Your task to perform on an android device: toggle notification dots Image 0: 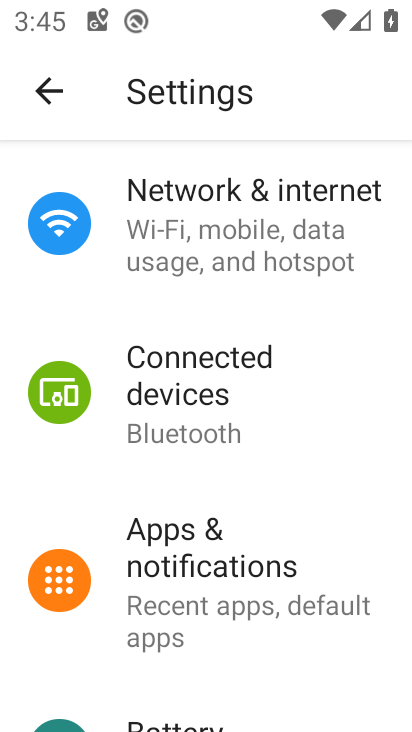
Step 0: click (194, 564)
Your task to perform on an android device: toggle notification dots Image 1: 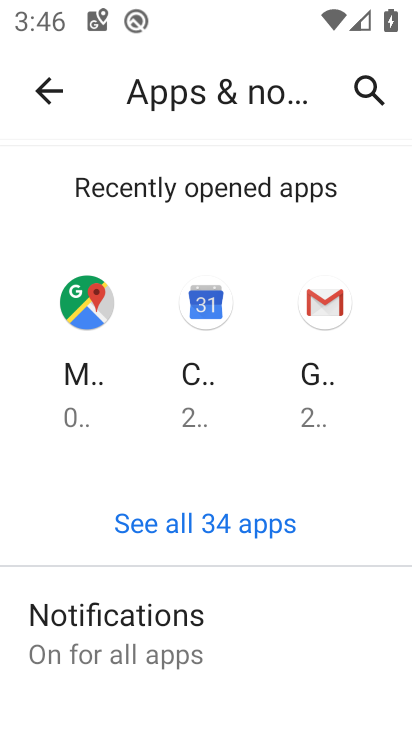
Step 1: click (122, 628)
Your task to perform on an android device: toggle notification dots Image 2: 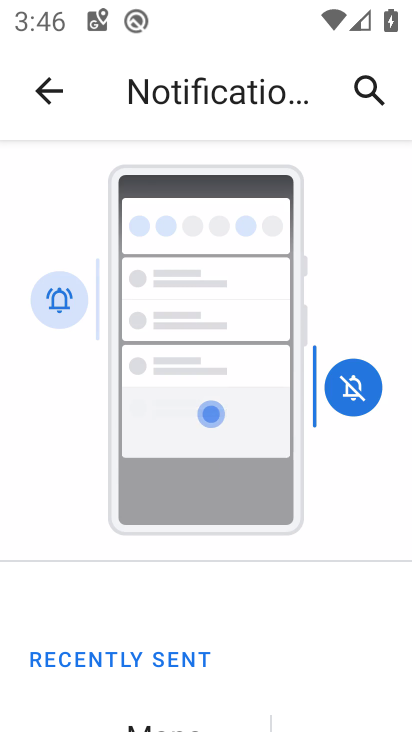
Step 2: drag from (241, 666) to (348, 106)
Your task to perform on an android device: toggle notification dots Image 3: 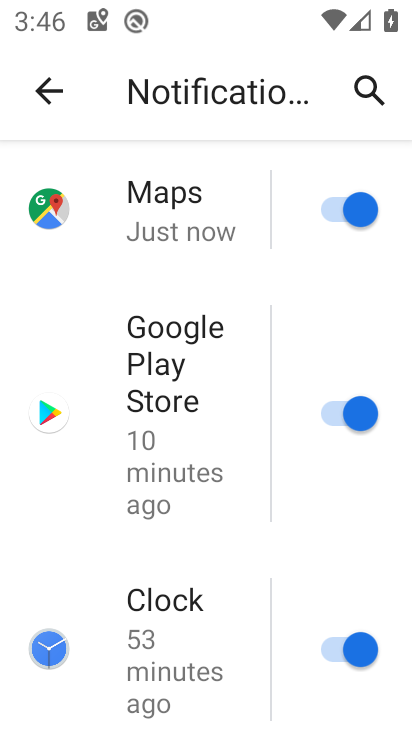
Step 3: drag from (277, 702) to (321, 272)
Your task to perform on an android device: toggle notification dots Image 4: 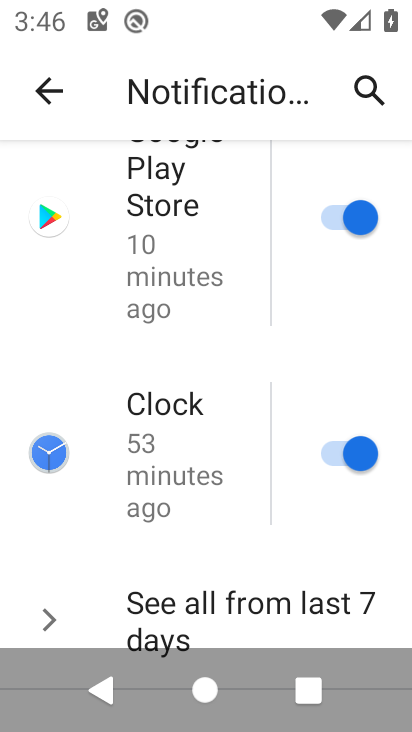
Step 4: drag from (251, 618) to (296, 270)
Your task to perform on an android device: toggle notification dots Image 5: 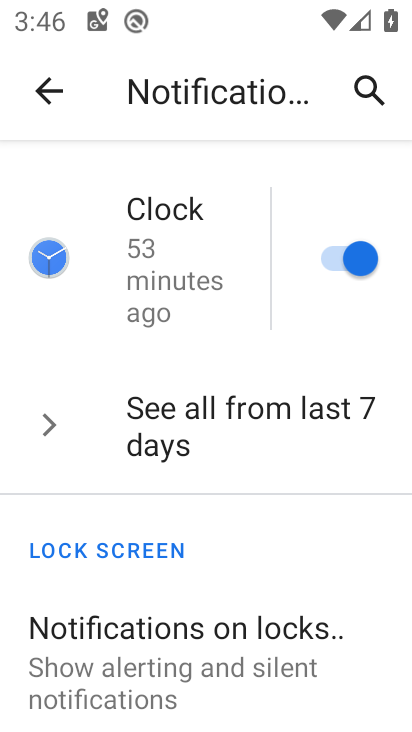
Step 5: drag from (158, 662) to (240, 252)
Your task to perform on an android device: toggle notification dots Image 6: 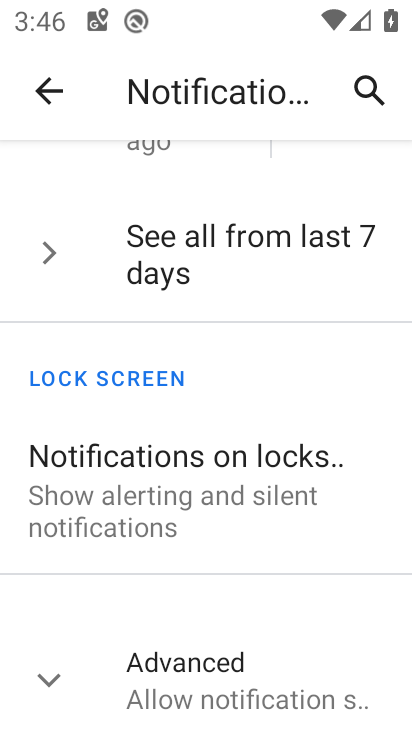
Step 6: click (193, 688)
Your task to perform on an android device: toggle notification dots Image 7: 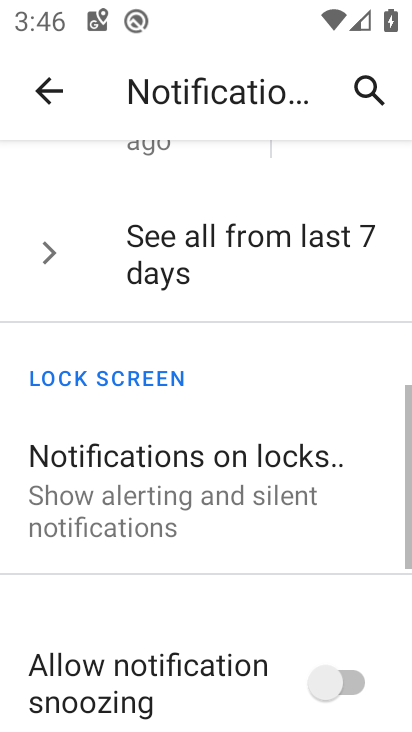
Step 7: drag from (232, 531) to (258, 351)
Your task to perform on an android device: toggle notification dots Image 8: 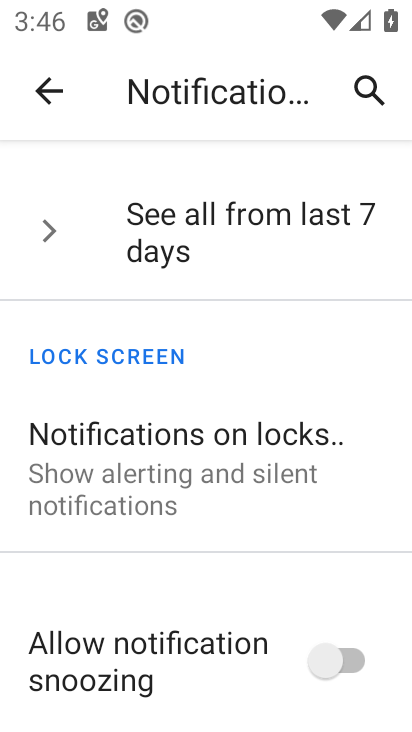
Step 8: drag from (218, 673) to (311, 392)
Your task to perform on an android device: toggle notification dots Image 9: 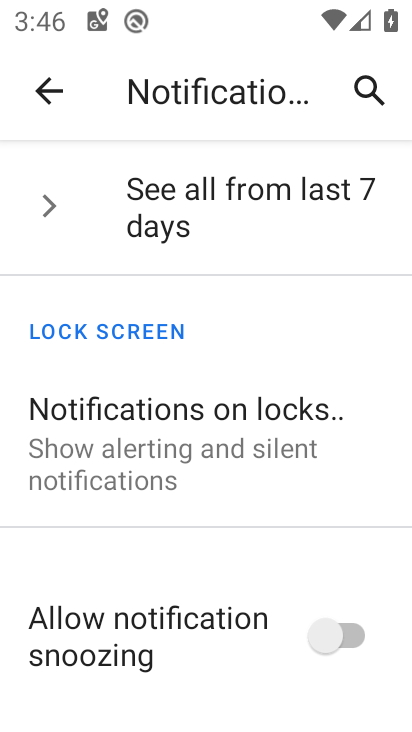
Step 9: drag from (201, 541) to (222, 397)
Your task to perform on an android device: toggle notification dots Image 10: 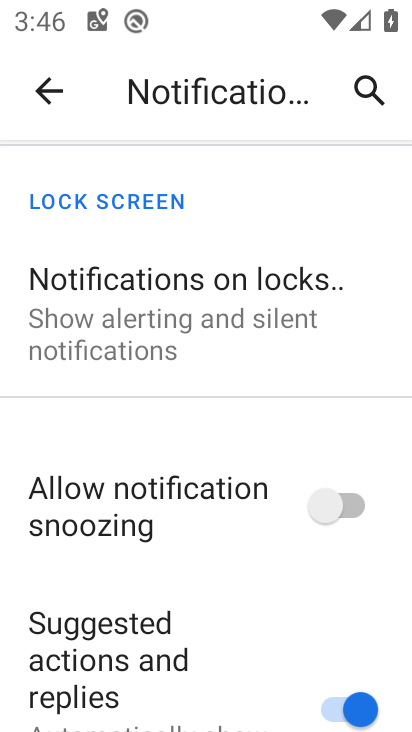
Step 10: drag from (184, 549) to (197, 365)
Your task to perform on an android device: toggle notification dots Image 11: 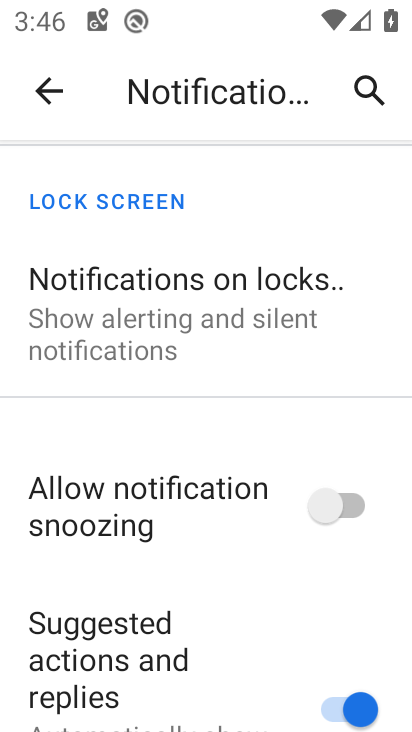
Step 11: drag from (219, 671) to (254, 303)
Your task to perform on an android device: toggle notification dots Image 12: 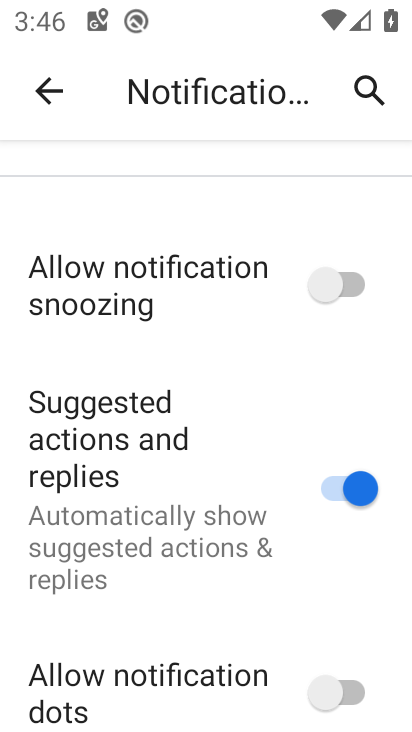
Step 12: click (349, 697)
Your task to perform on an android device: toggle notification dots Image 13: 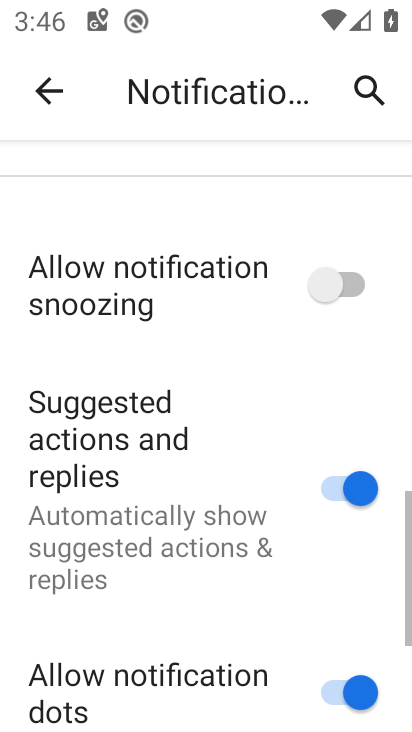
Step 13: task complete